Your task to perform on an android device: Open Yahoo.com Image 0: 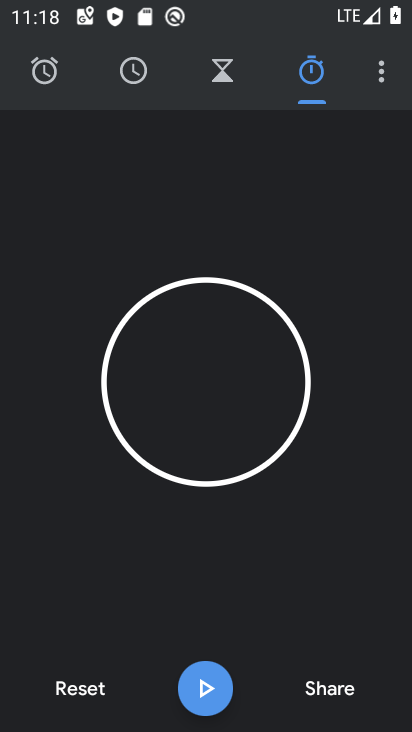
Step 0: press home button
Your task to perform on an android device: Open Yahoo.com Image 1: 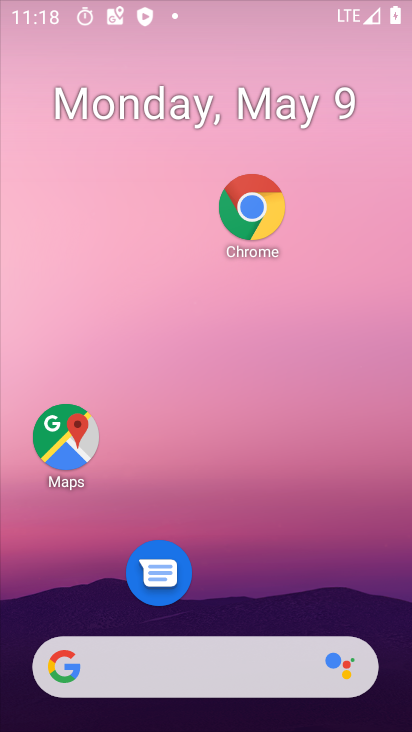
Step 1: drag from (229, 555) to (266, 241)
Your task to perform on an android device: Open Yahoo.com Image 2: 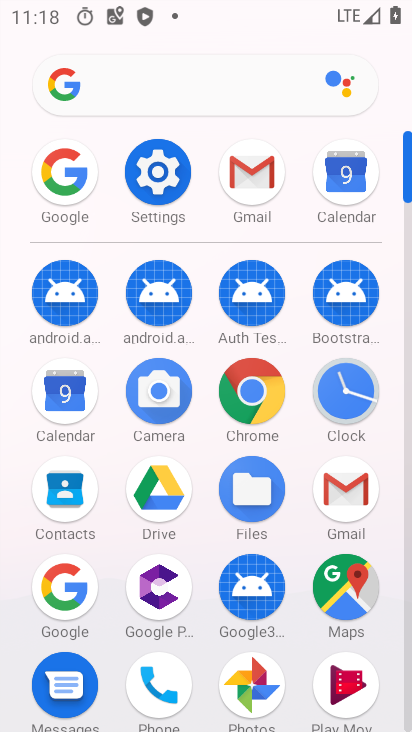
Step 2: click (267, 407)
Your task to perform on an android device: Open Yahoo.com Image 3: 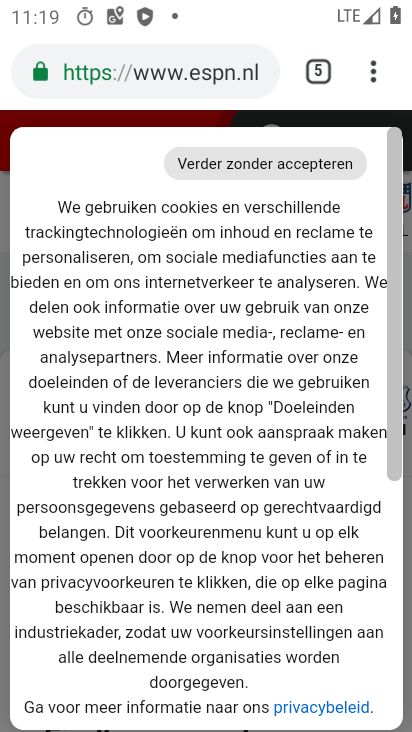
Step 3: click (242, 93)
Your task to perform on an android device: Open Yahoo.com Image 4: 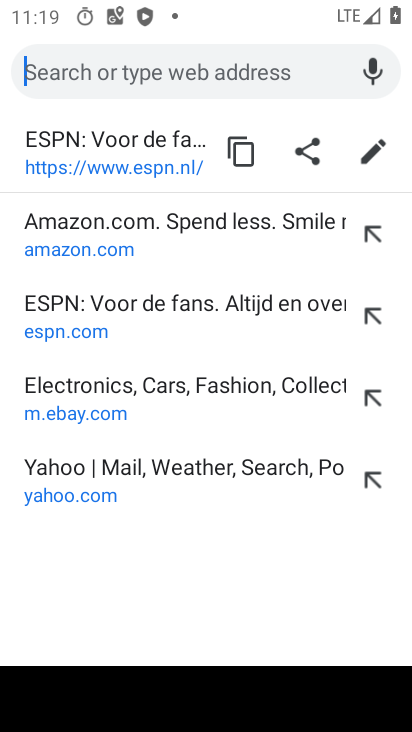
Step 4: type "yahoo.com"
Your task to perform on an android device: Open Yahoo.com Image 5: 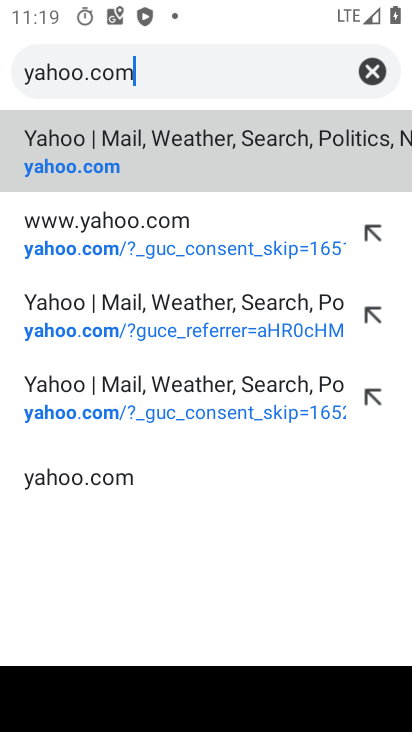
Step 5: click (199, 174)
Your task to perform on an android device: Open Yahoo.com Image 6: 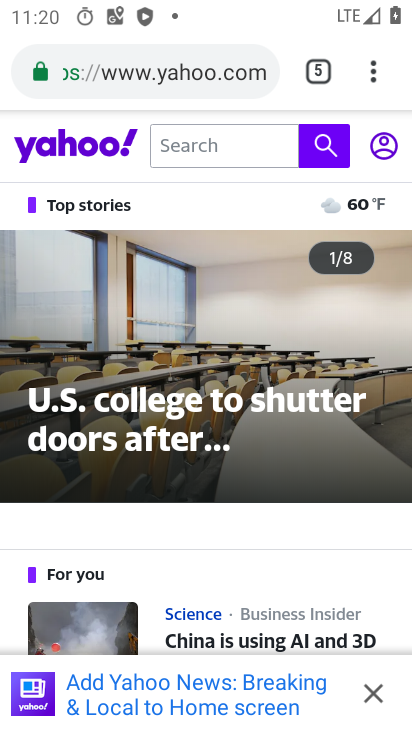
Step 6: task complete